Your task to perform on an android device: Open Chrome and go to settings Image 0: 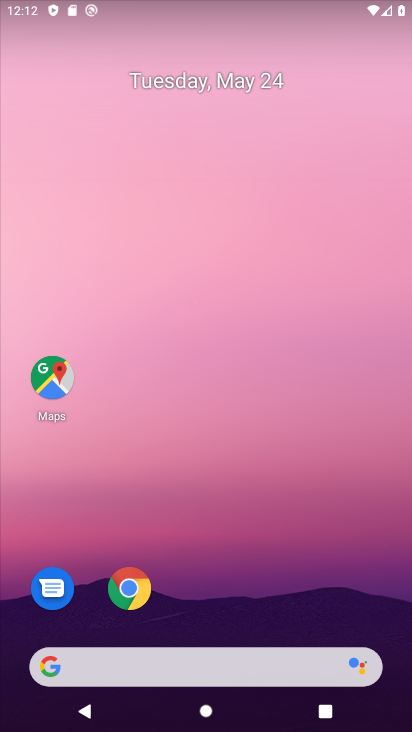
Step 0: click (129, 597)
Your task to perform on an android device: Open Chrome and go to settings Image 1: 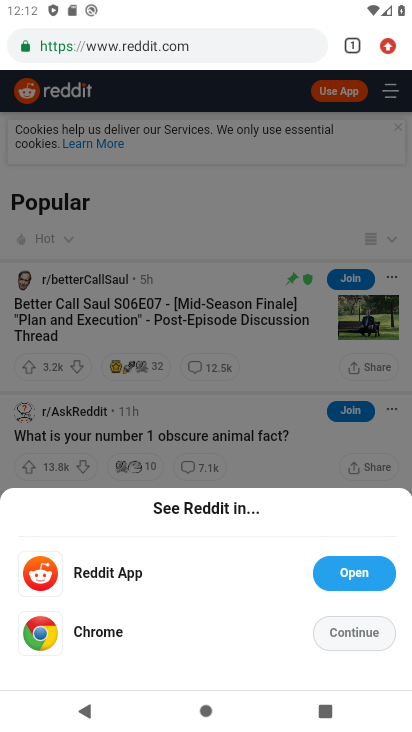
Step 1: click (389, 49)
Your task to perform on an android device: Open Chrome and go to settings Image 2: 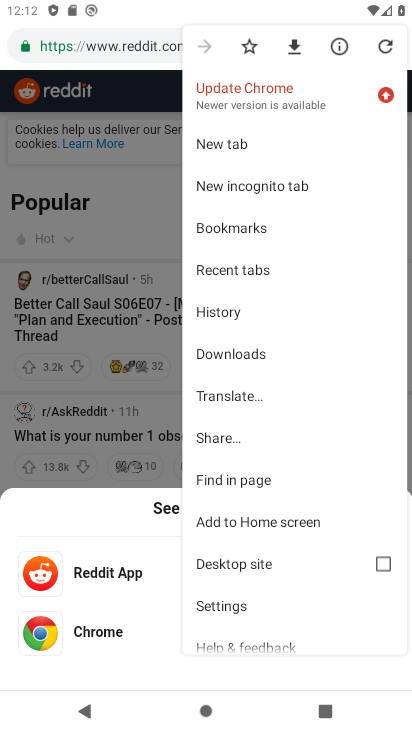
Step 2: click (246, 604)
Your task to perform on an android device: Open Chrome and go to settings Image 3: 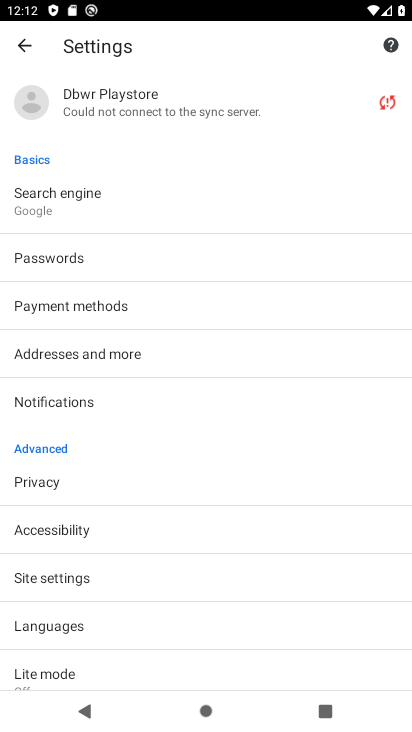
Step 3: task complete